Your task to perform on an android device: Open the calendar and show me this week's events? Image 0: 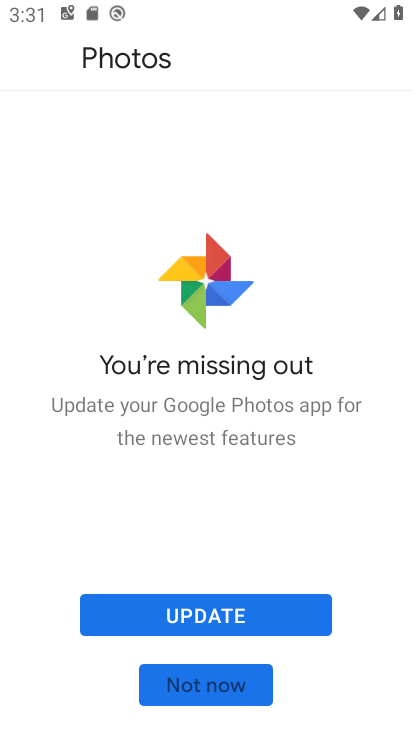
Step 0: press back button
Your task to perform on an android device: Open the calendar and show me this week's events? Image 1: 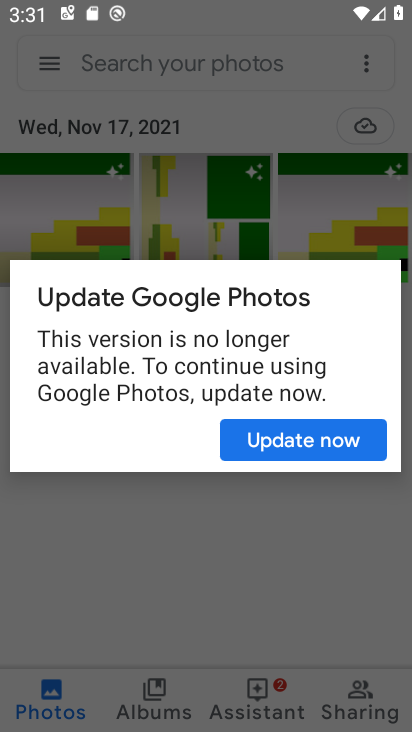
Step 1: click (265, 446)
Your task to perform on an android device: Open the calendar and show me this week's events? Image 2: 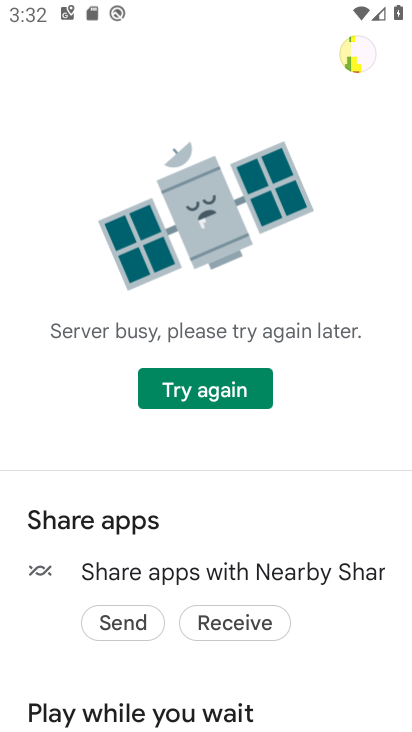
Step 2: task complete